Your task to perform on an android device: Set the phone to "Do not disturb". Image 0: 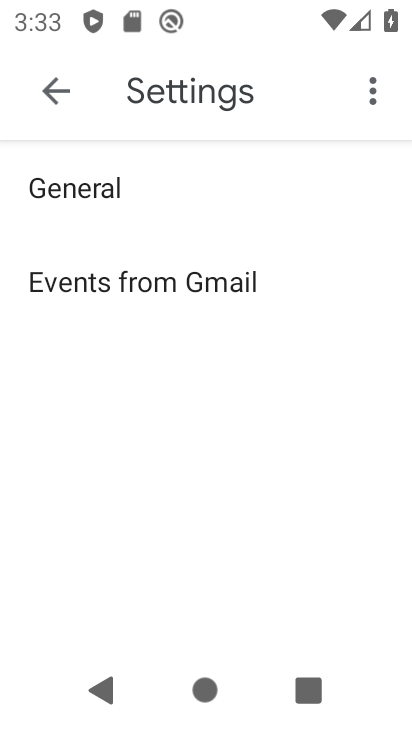
Step 0: press home button
Your task to perform on an android device: Set the phone to "Do not disturb". Image 1: 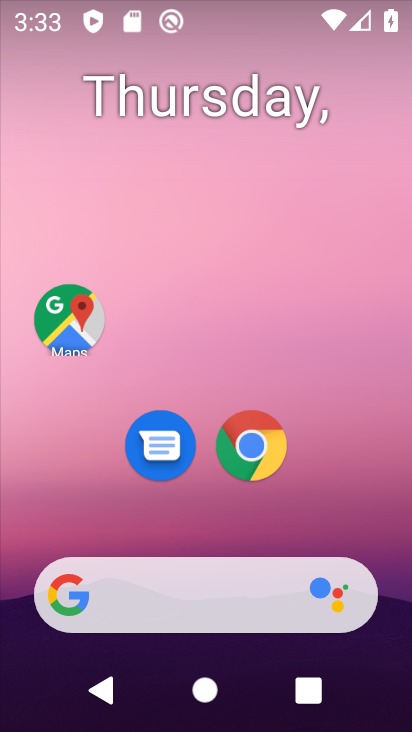
Step 1: drag from (352, 517) to (241, 16)
Your task to perform on an android device: Set the phone to "Do not disturb". Image 2: 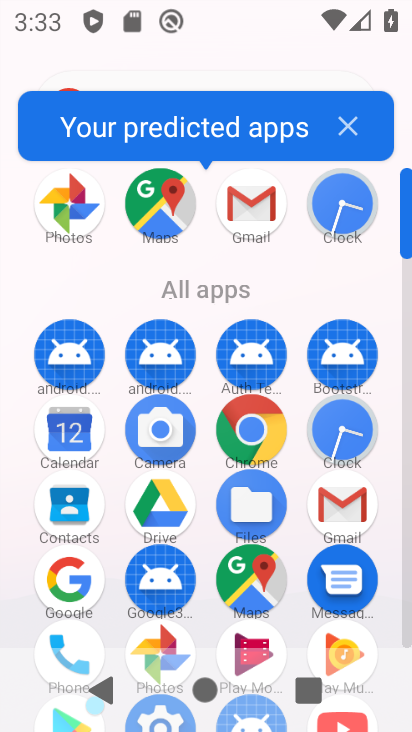
Step 2: drag from (203, 499) to (219, 250)
Your task to perform on an android device: Set the phone to "Do not disturb". Image 3: 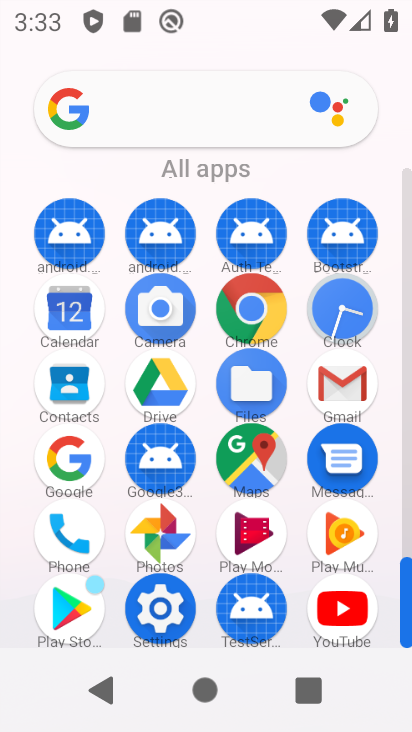
Step 3: click (160, 608)
Your task to perform on an android device: Set the phone to "Do not disturb". Image 4: 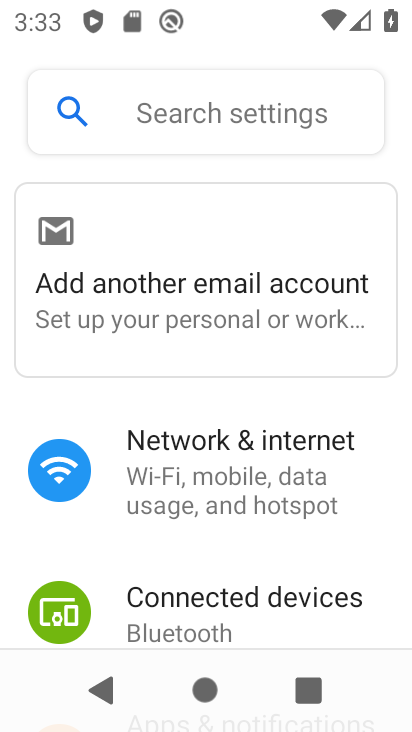
Step 4: drag from (260, 546) to (272, 315)
Your task to perform on an android device: Set the phone to "Do not disturb". Image 5: 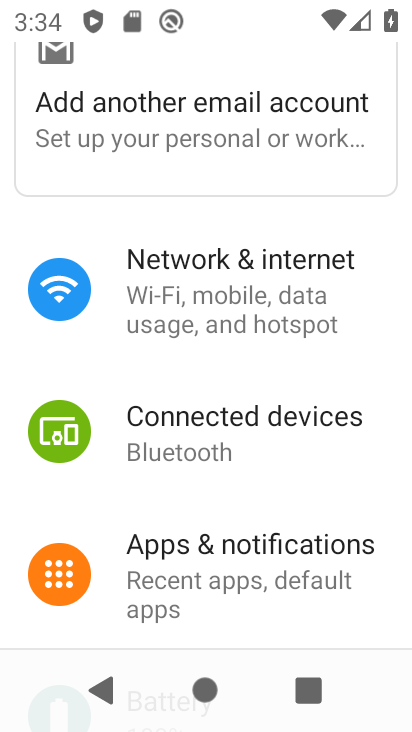
Step 5: drag from (228, 511) to (291, 347)
Your task to perform on an android device: Set the phone to "Do not disturb". Image 6: 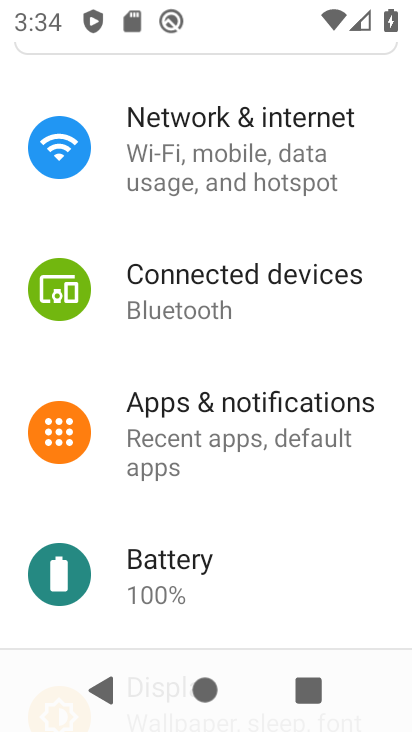
Step 6: drag from (223, 564) to (253, 345)
Your task to perform on an android device: Set the phone to "Do not disturb". Image 7: 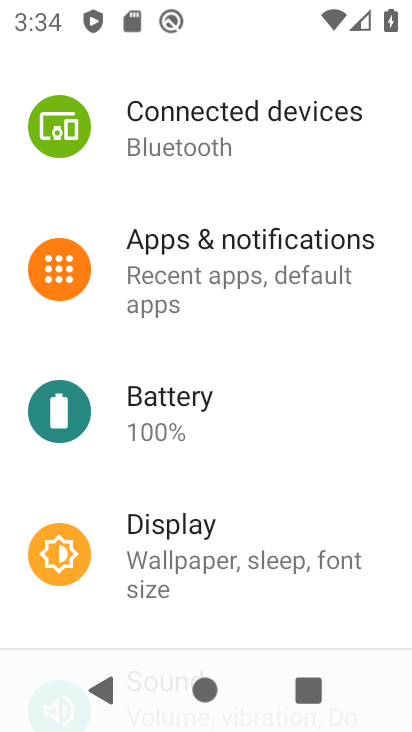
Step 7: drag from (245, 595) to (314, 410)
Your task to perform on an android device: Set the phone to "Do not disturb". Image 8: 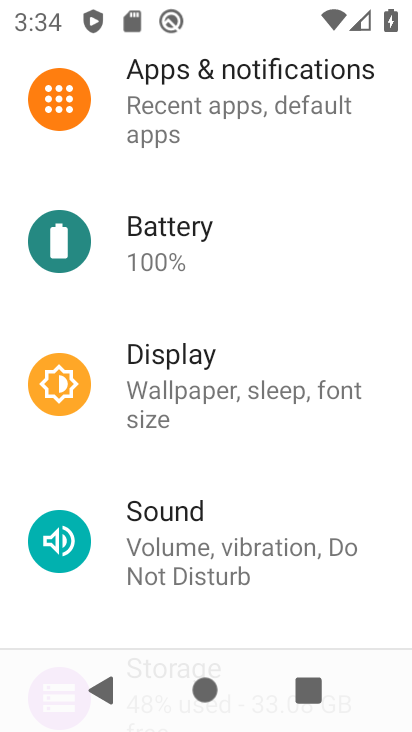
Step 8: click (237, 547)
Your task to perform on an android device: Set the phone to "Do not disturb". Image 9: 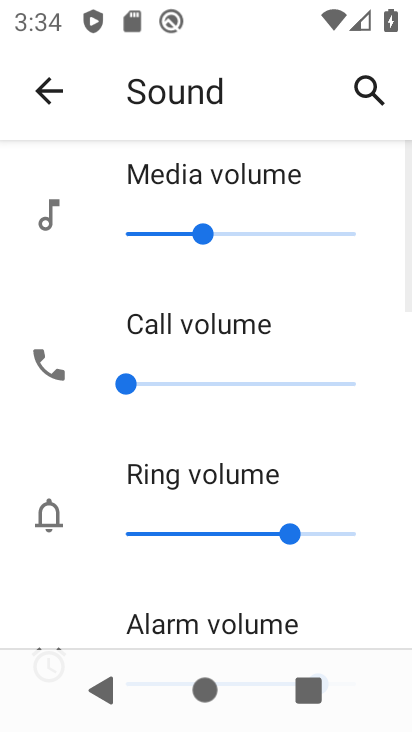
Step 9: drag from (218, 592) to (307, 346)
Your task to perform on an android device: Set the phone to "Do not disturb". Image 10: 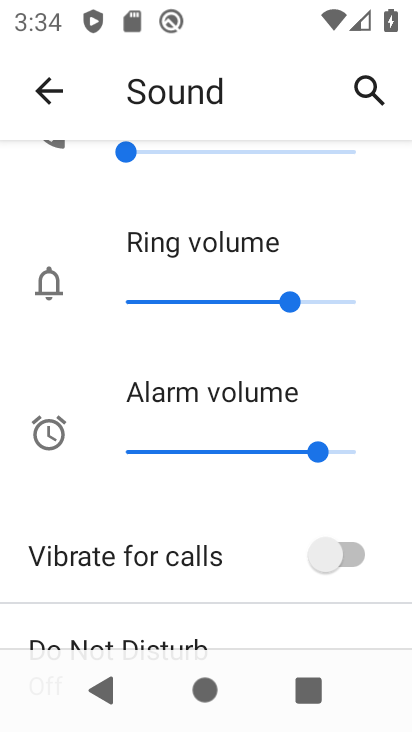
Step 10: drag from (206, 579) to (320, 386)
Your task to perform on an android device: Set the phone to "Do not disturb". Image 11: 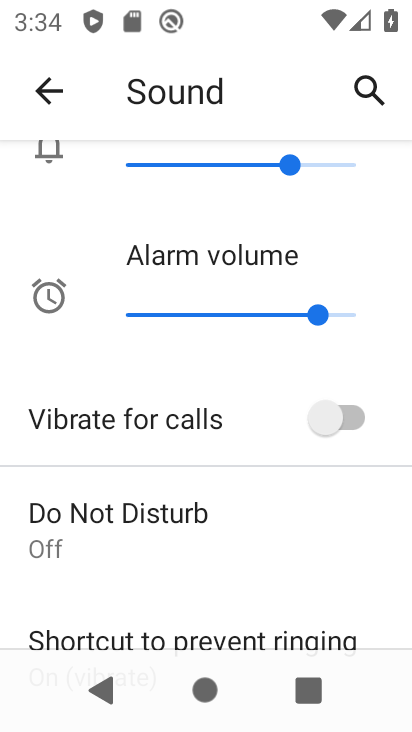
Step 11: click (113, 517)
Your task to perform on an android device: Set the phone to "Do not disturb". Image 12: 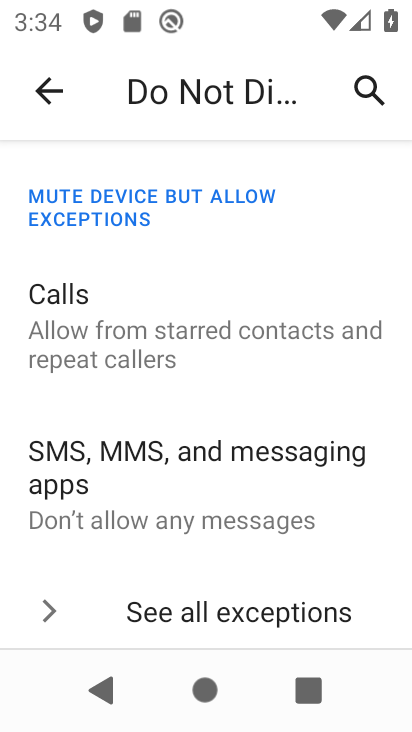
Step 12: drag from (208, 585) to (283, 280)
Your task to perform on an android device: Set the phone to "Do not disturb". Image 13: 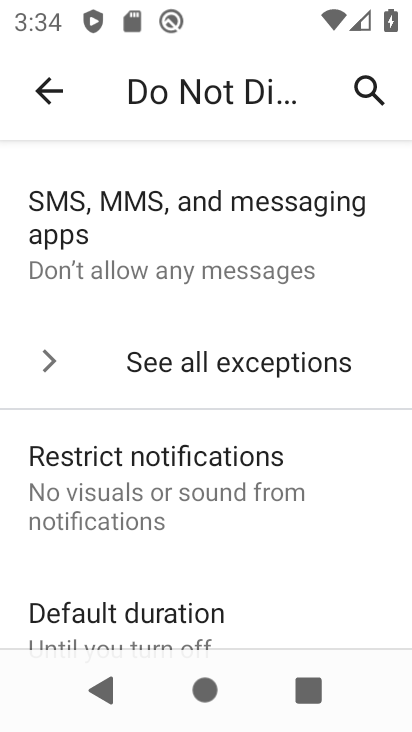
Step 13: drag from (210, 542) to (287, 261)
Your task to perform on an android device: Set the phone to "Do not disturb". Image 14: 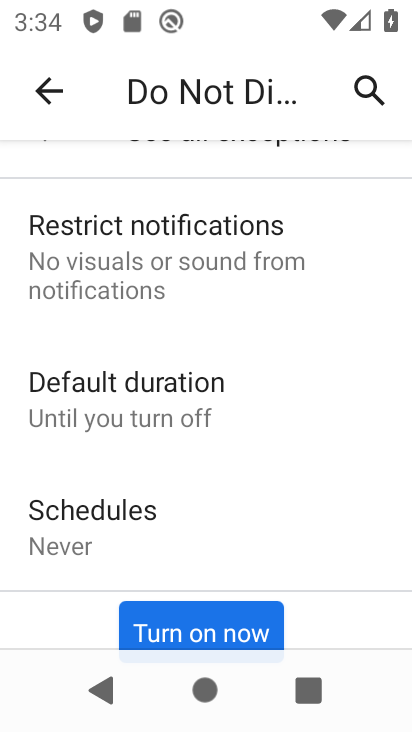
Step 14: drag from (208, 568) to (239, 425)
Your task to perform on an android device: Set the phone to "Do not disturb". Image 15: 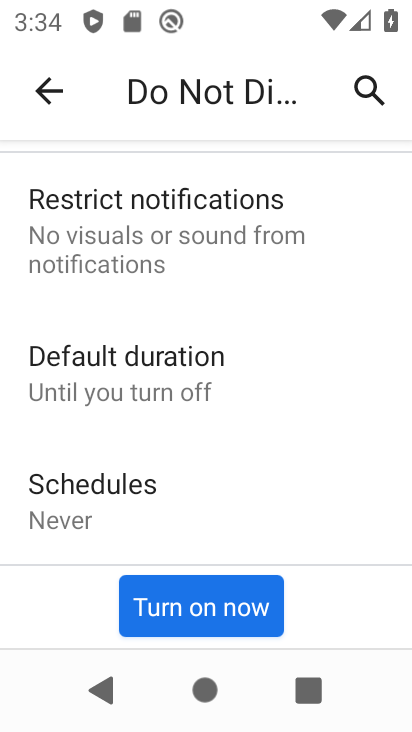
Step 15: click (191, 608)
Your task to perform on an android device: Set the phone to "Do not disturb". Image 16: 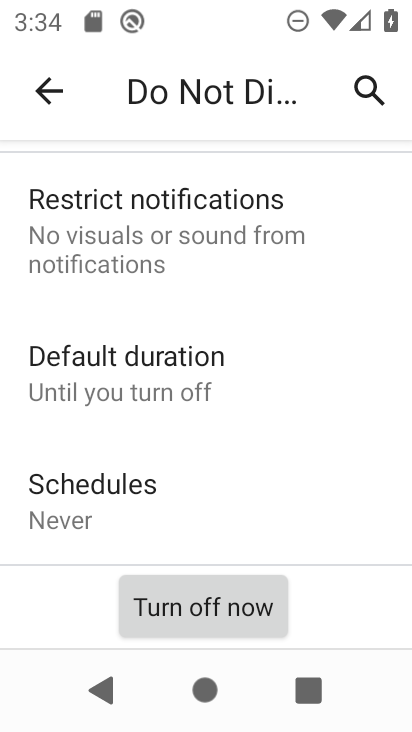
Step 16: task complete